Your task to perform on an android device: Search for vegetarian restaurants on Maps Image 0: 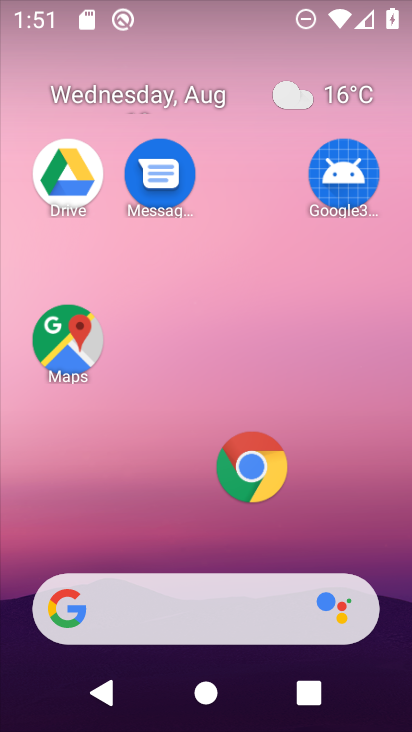
Step 0: click (52, 340)
Your task to perform on an android device: Search for vegetarian restaurants on Maps Image 1: 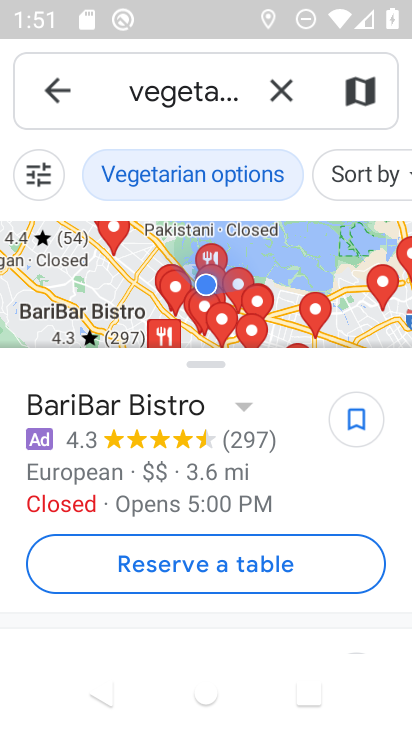
Step 1: task complete